Your task to perform on an android device: Go to battery settings Image 0: 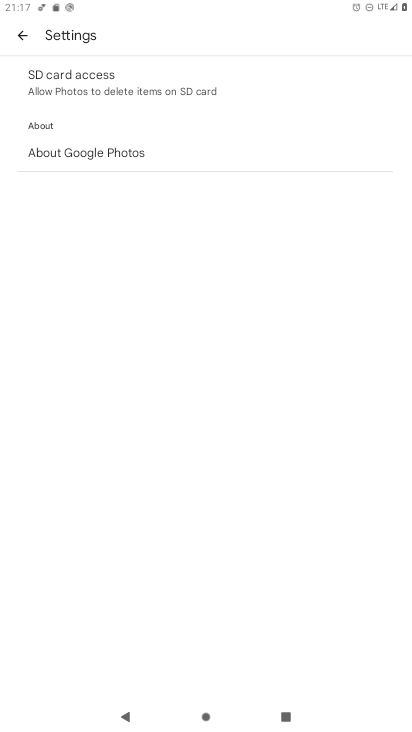
Step 0: press home button
Your task to perform on an android device: Go to battery settings Image 1: 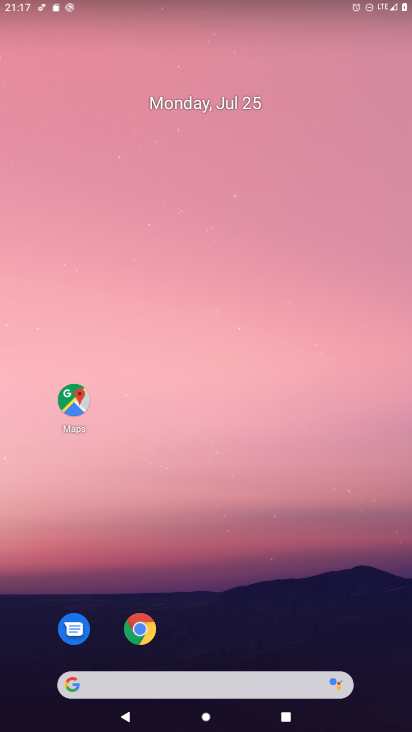
Step 1: drag from (194, 686) to (197, 9)
Your task to perform on an android device: Go to battery settings Image 2: 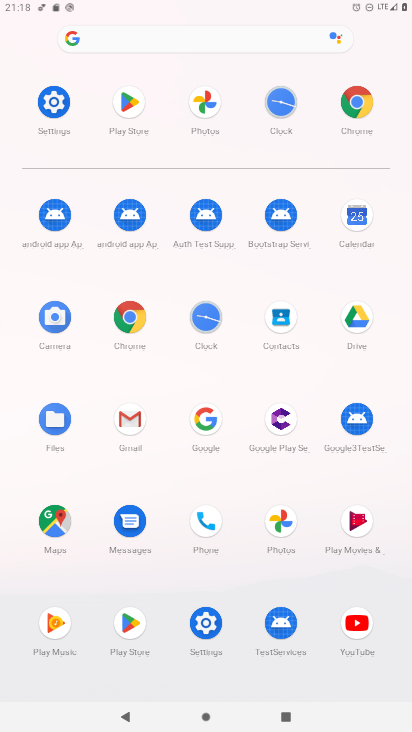
Step 2: click (205, 621)
Your task to perform on an android device: Go to battery settings Image 3: 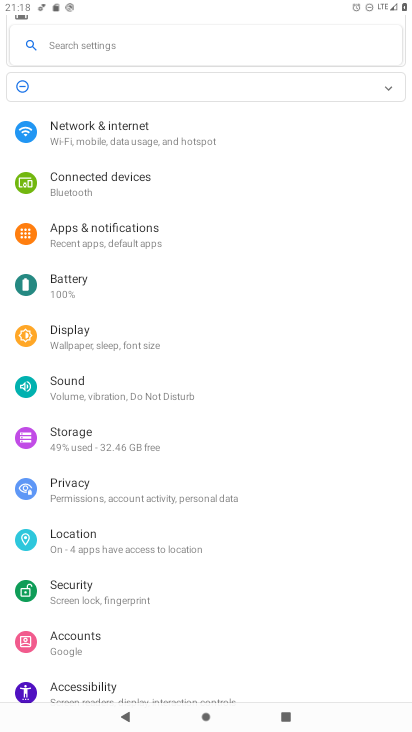
Step 3: click (79, 278)
Your task to perform on an android device: Go to battery settings Image 4: 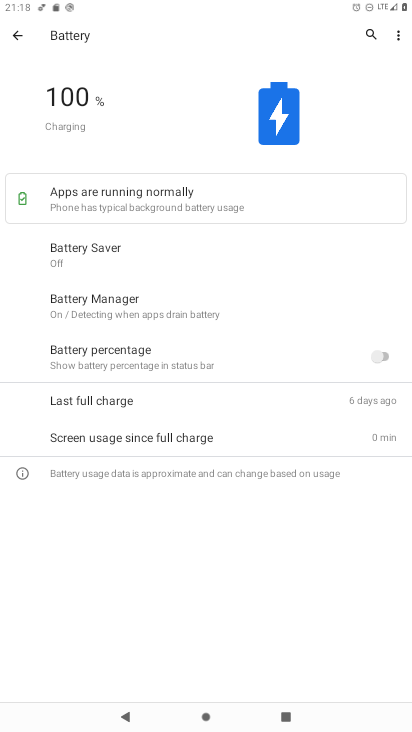
Step 4: task complete